Your task to perform on an android device: Open Google Image 0: 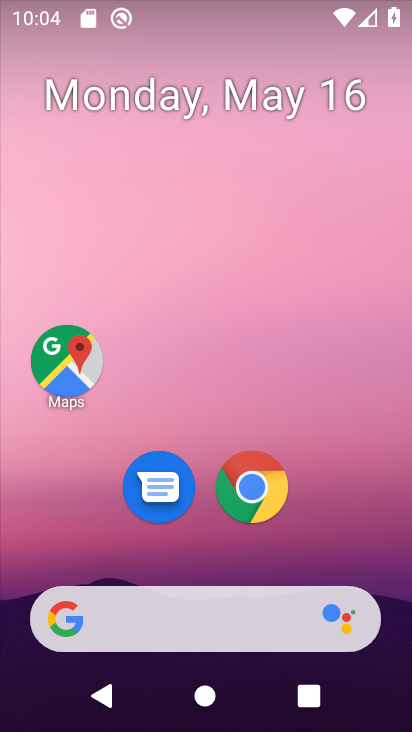
Step 0: drag from (274, 547) to (248, 303)
Your task to perform on an android device: Open Google Image 1: 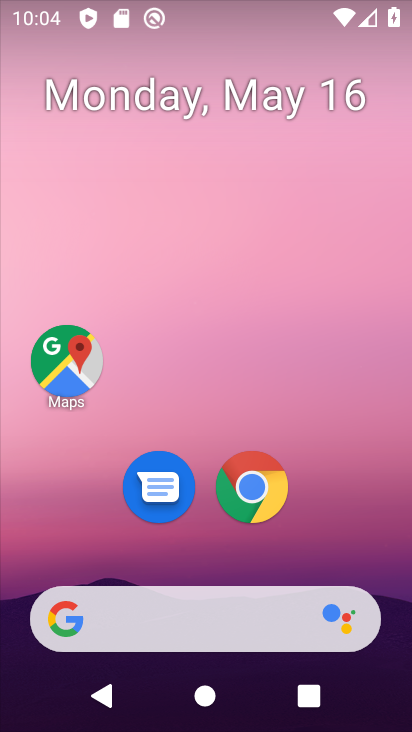
Step 1: drag from (295, 488) to (259, 191)
Your task to perform on an android device: Open Google Image 2: 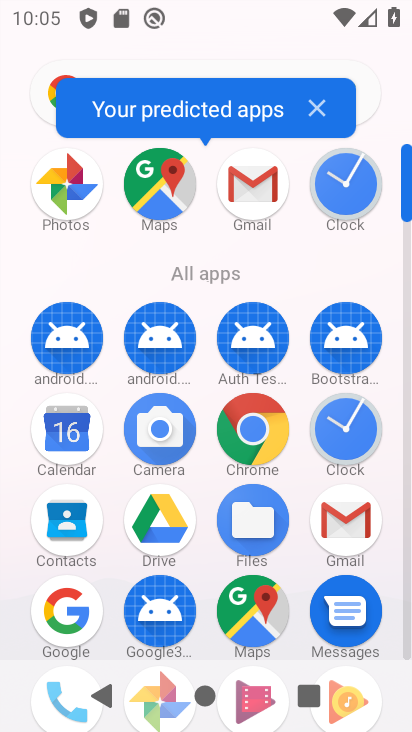
Step 2: click (276, 432)
Your task to perform on an android device: Open Google Image 3: 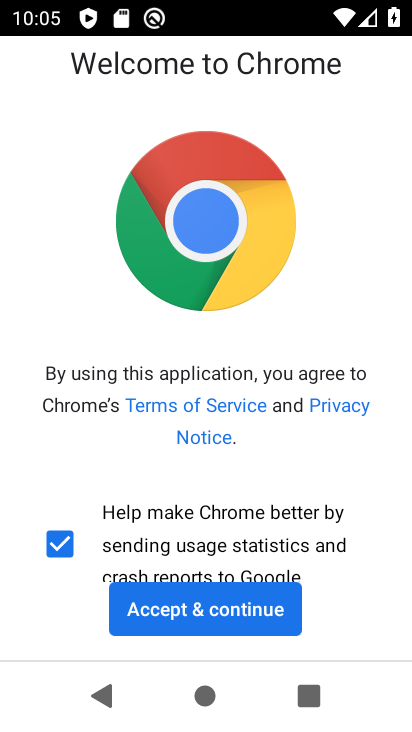
Step 3: press home button
Your task to perform on an android device: Open Google Image 4: 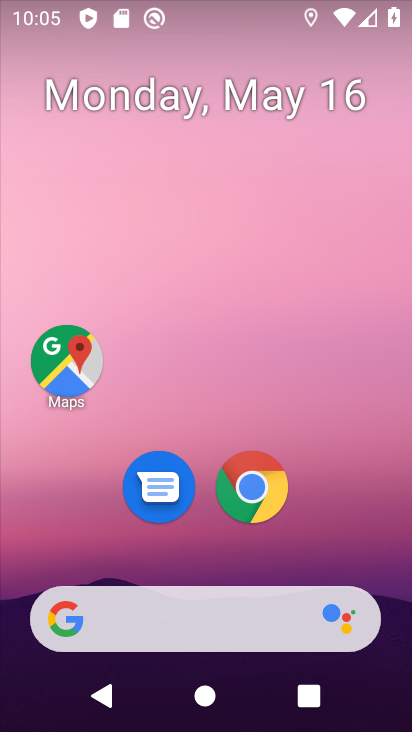
Step 4: click (147, 617)
Your task to perform on an android device: Open Google Image 5: 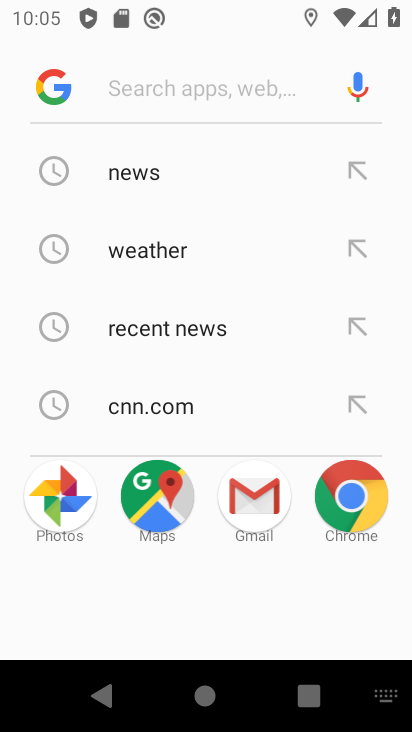
Step 5: task complete